Your task to perform on an android device: Check the weather Image 0: 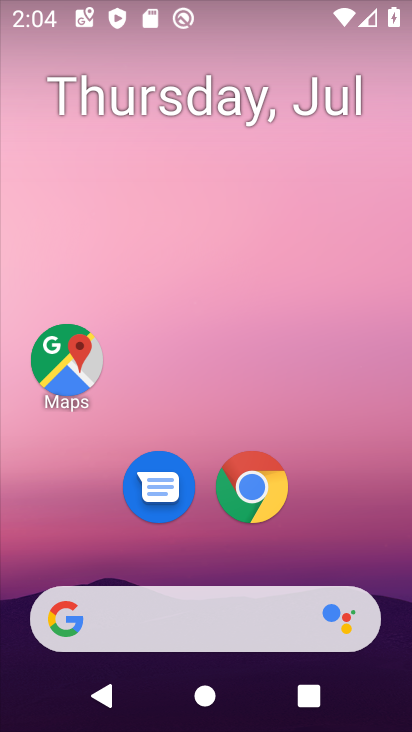
Step 0: click (178, 608)
Your task to perform on an android device: Check the weather Image 1: 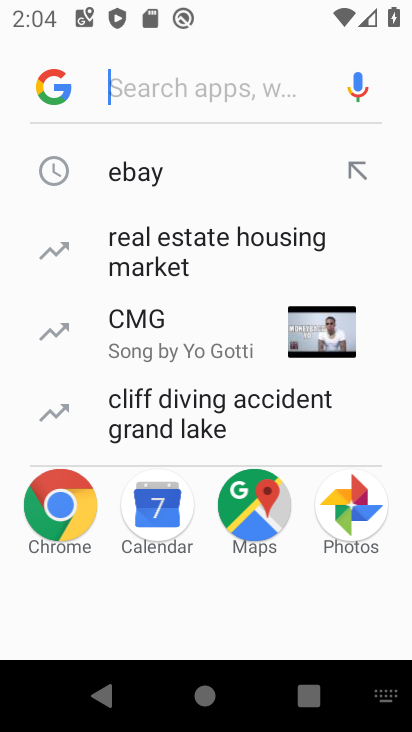
Step 1: type "weather"
Your task to perform on an android device: Check the weather Image 2: 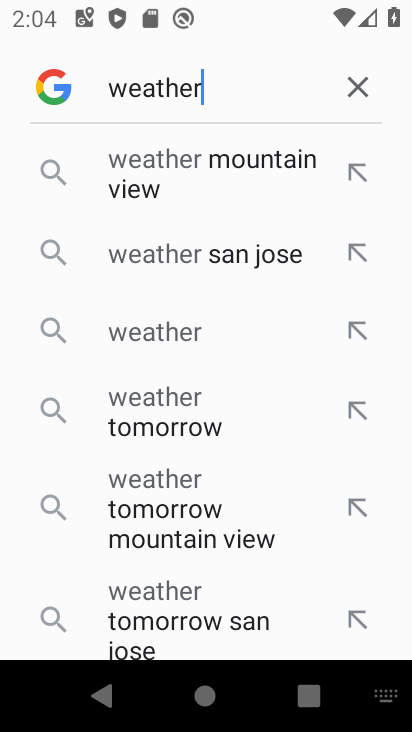
Step 2: click (195, 179)
Your task to perform on an android device: Check the weather Image 3: 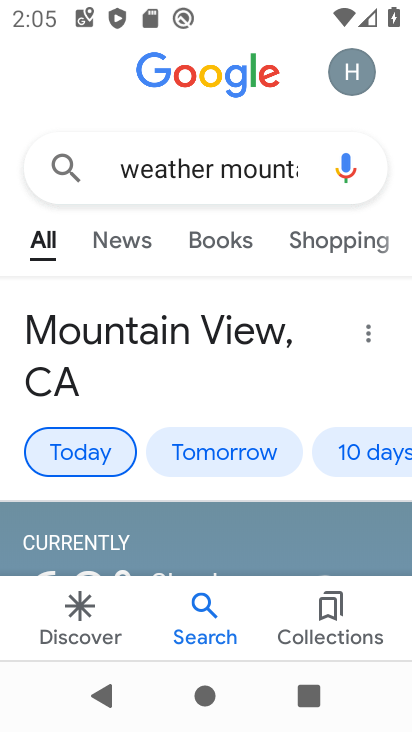
Step 3: task complete